Your task to perform on an android device: star an email in the gmail app Image 0: 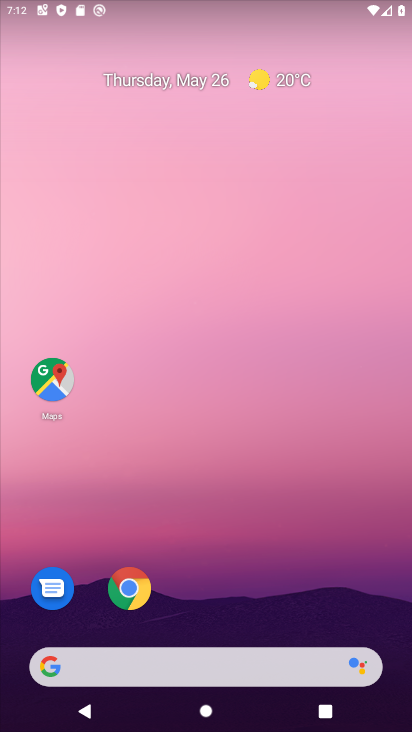
Step 0: drag from (368, 602) to (334, 63)
Your task to perform on an android device: star an email in the gmail app Image 1: 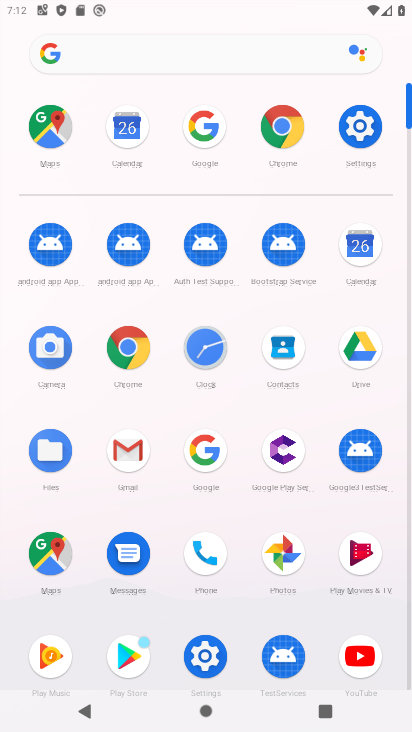
Step 1: click (142, 444)
Your task to perform on an android device: star an email in the gmail app Image 2: 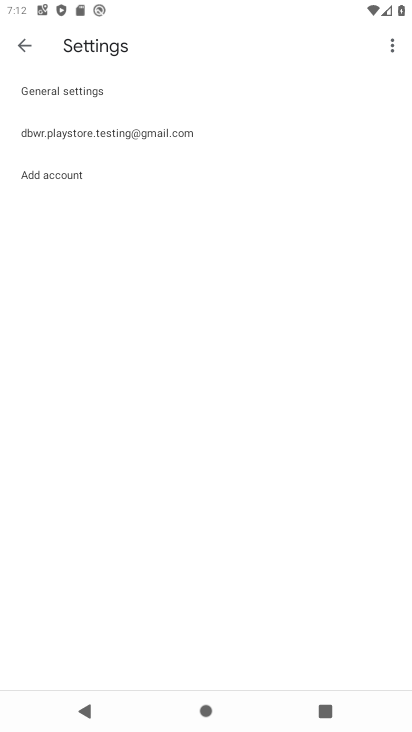
Step 2: task complete